Your task to perform on an android device: Go to display settings Image 0: 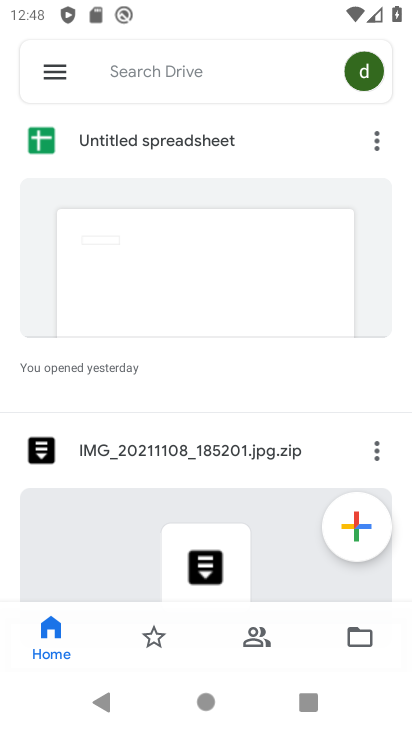
Step 0: press home button
Your task to perform on an android device: Go to display settings Image 1: 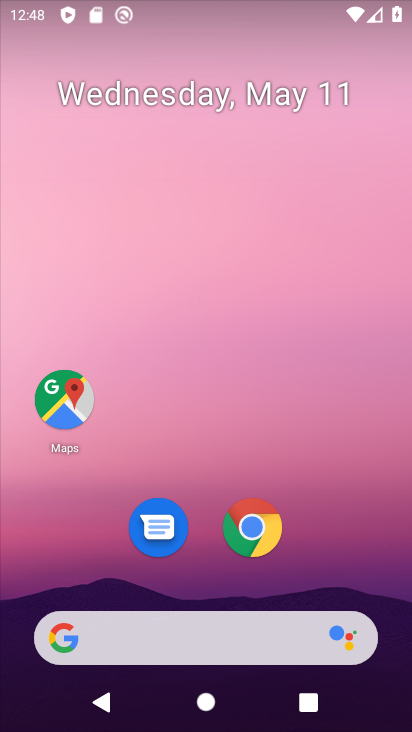
Step 1: drag from (280, 584) to (380, 90)
Your task to perform on an android device: Go to display settings Image 2: 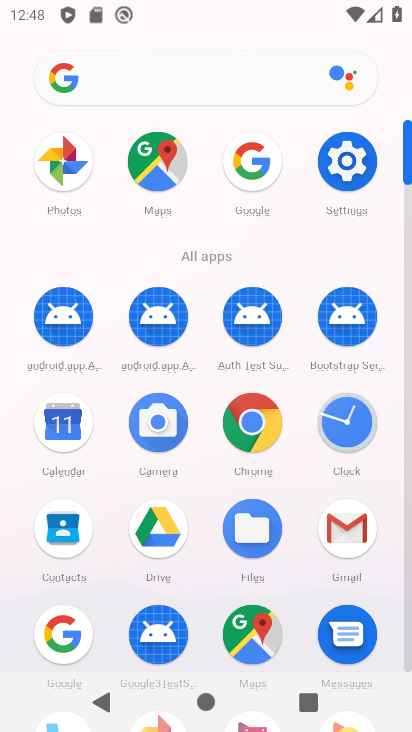
Step 2: click (364, 165)
Your task to perform on an android device: Go to display settings Image 3: 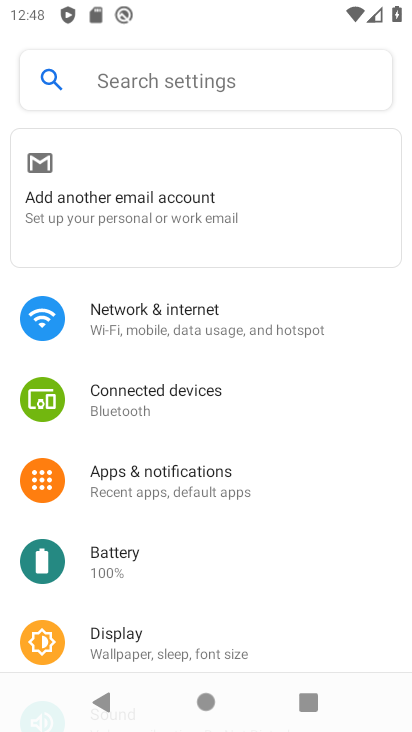
Step 3: drag from (253, 530) to (336, 56)
Your task to perform on an android device: Go to display settings Image 4: 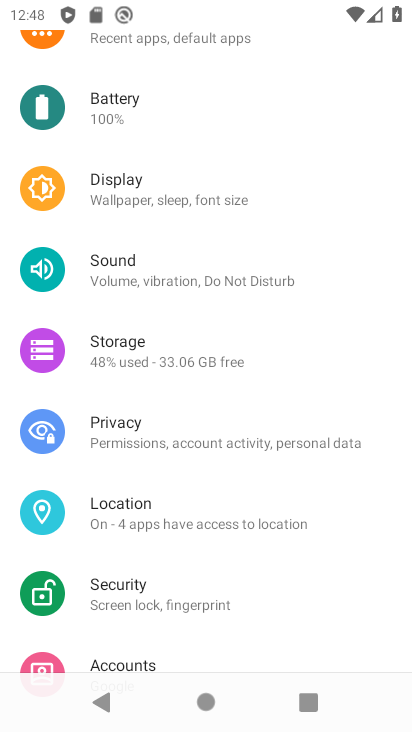
Step 4: click (274, 204)
Your task to perform on an android device: Go to display settings Image 5: 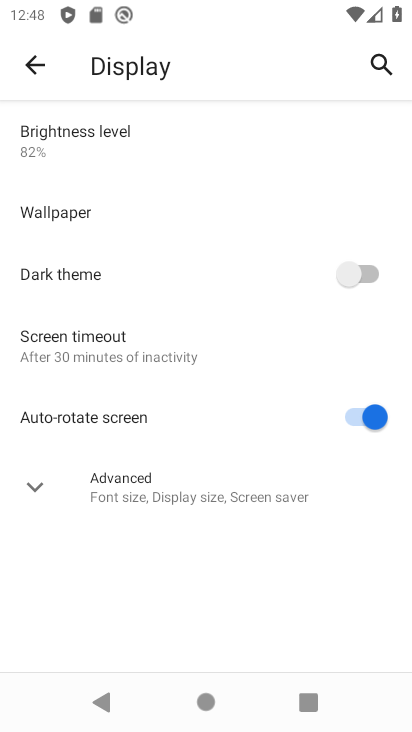
Step 5: task complete